Your task to perform on an android device: Open Amazon Image 0: 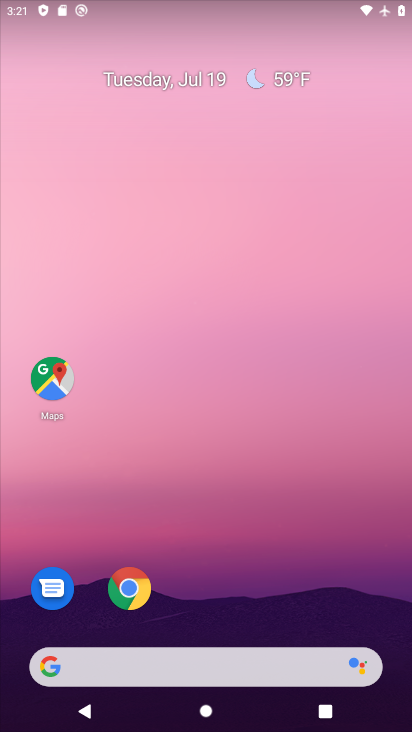
Step 0: click (41, 675)
Your task to perform on an android device: Open Amazon Image 1: 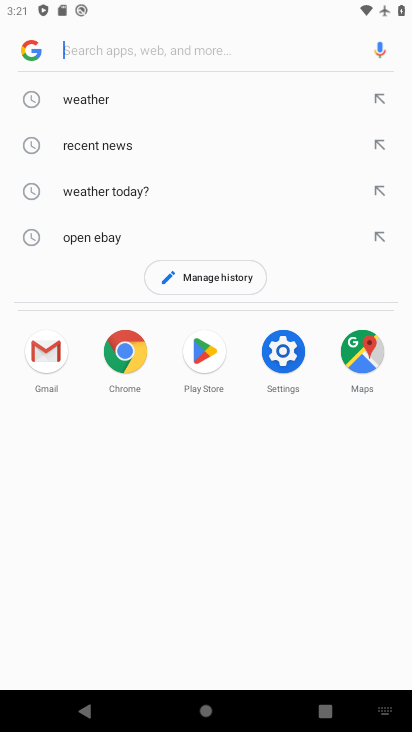
Step 1: type "Amazon"
Your task to perform on an android device: Open Amazon Image 2: 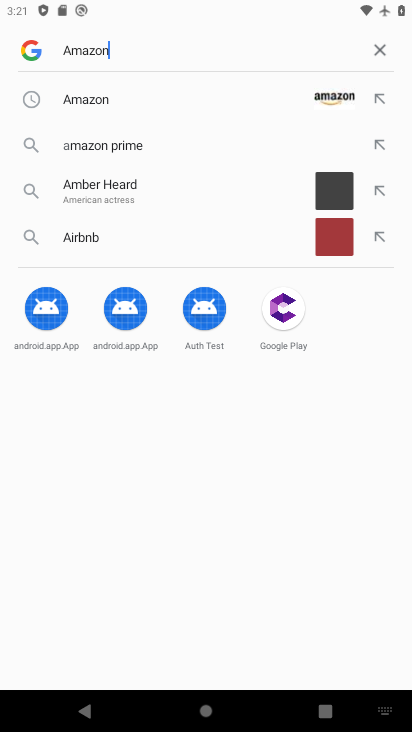
Step 2: press enter
Your task to perform on an android device: Open Amazon Image 3: 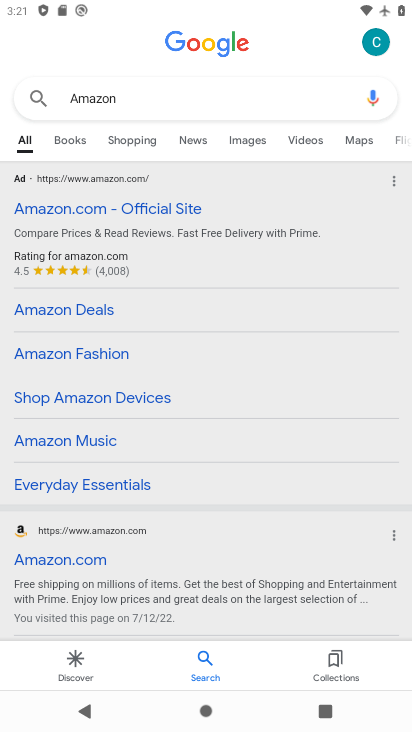
Step 3: click (79, 209)
Your task to perform on an android device: Open Amazon Image 4: 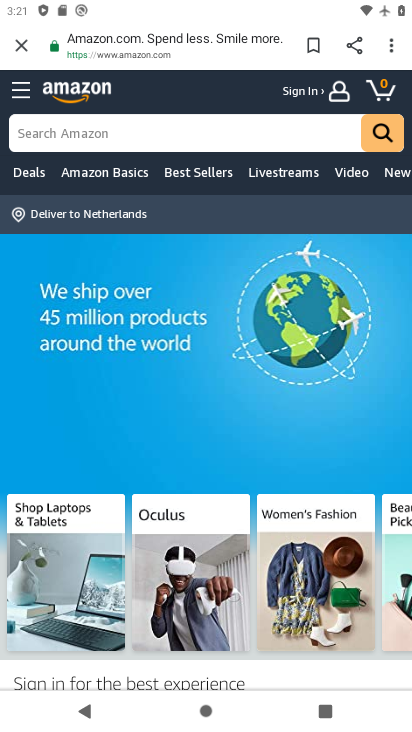
Step 4: task complete